Your task to perform on an android device: open sync settings in chrome Image 0: 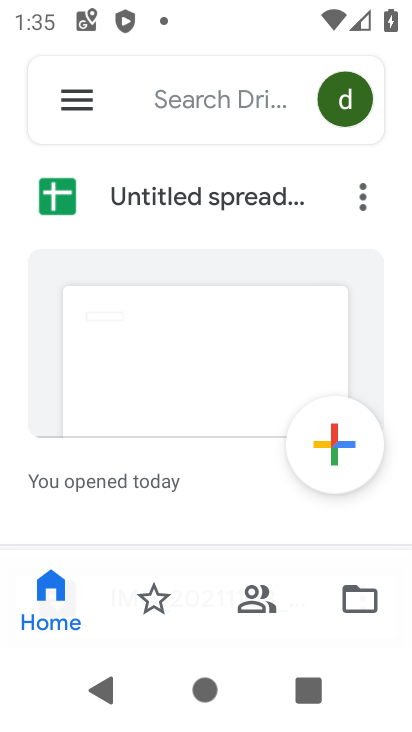
Step 0: press home button
Your task to perform on an android device: open sync settings in chrome Image 1: 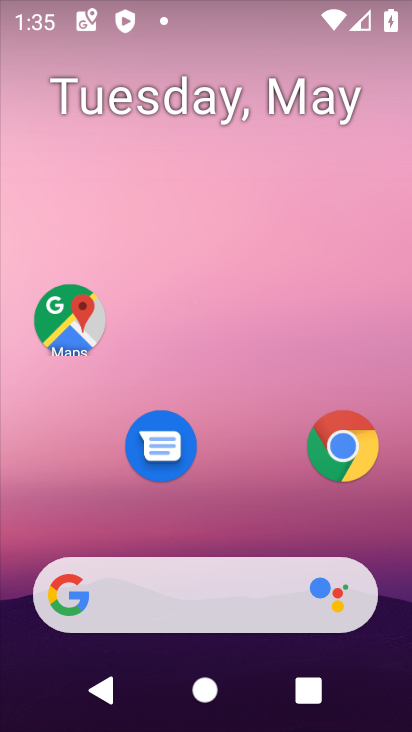
Step 1: click (367, 448)
Your task to perform on an android device: open sync settings in chrome Image 2: 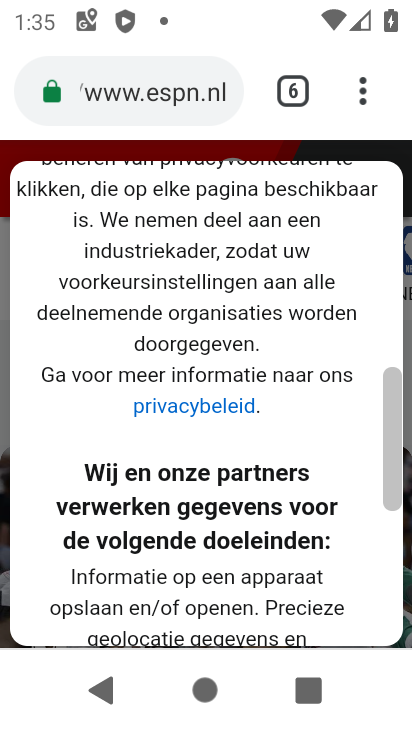
Step 2: drag from (364, 95) to (73, 468)
Your task to perform on an android device: open sync settings in chrome Image 3: 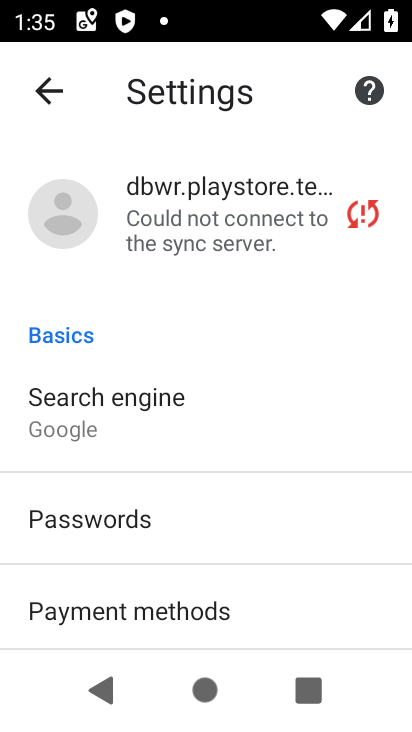
Step 3: click (194, 233)
Your task to perform on an android device: open sync settings in chrome Image 4: 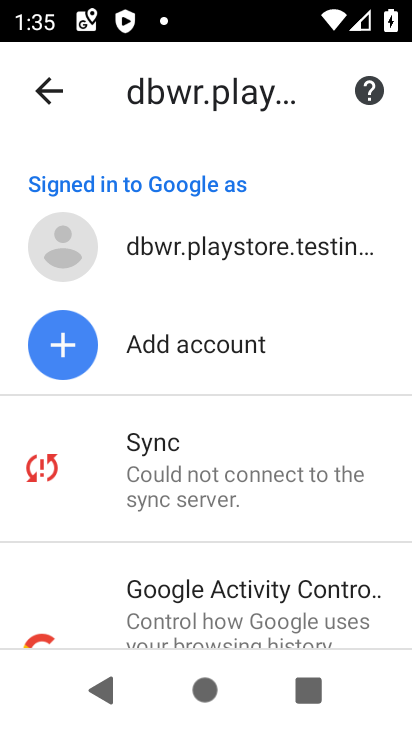
Step 4: task complete